Your task to perform on an android device: check data usage Image 0: 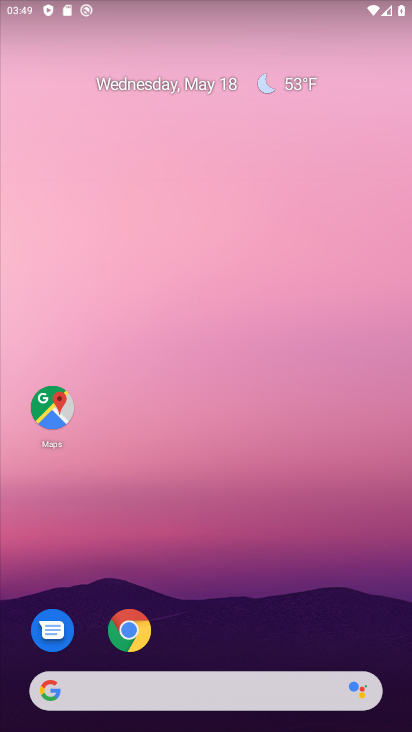
Step 0: drag from (221, 731) to (215, 140)
Your task to perform on an android device: check data usage Image 1: 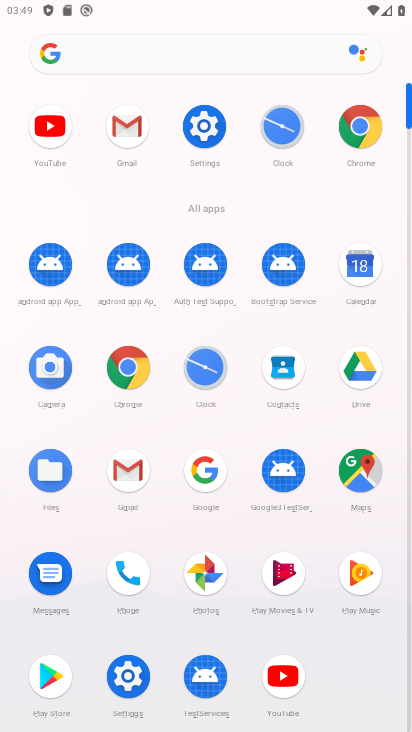
Step 1: click (202, 127)
Your task to perform on an android device: check data usage Image 2: 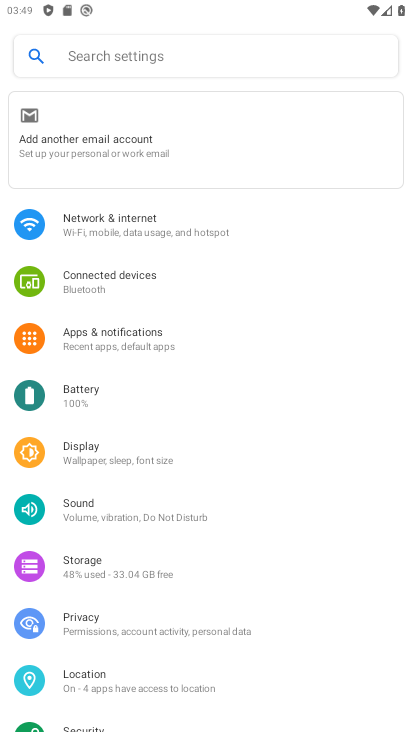
Step 2: click (105, 230)
Your task to perform on an android device: check data usage Image 3: 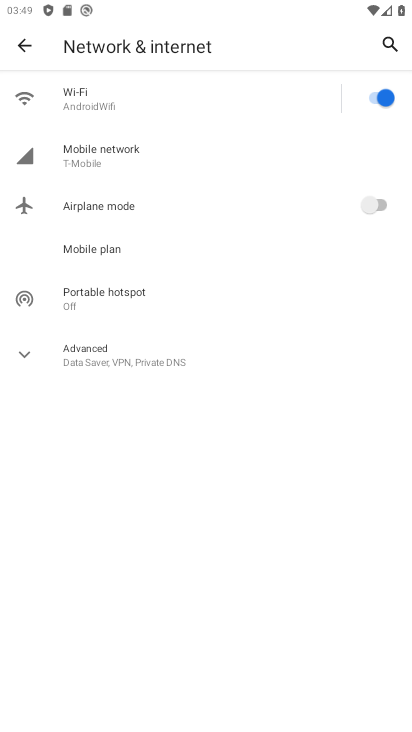
Step 3: click (90, 152)
Your task to perform on an android device: check data usage Image 4: 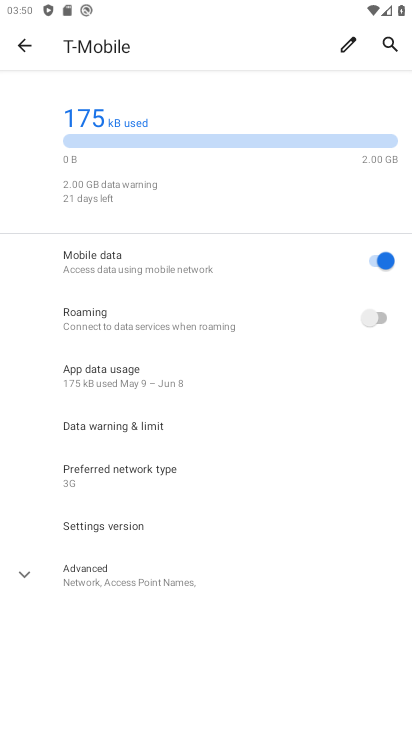
Step 4: click (84, 372)
Your task to perform on an android device: check data usage Image 5: 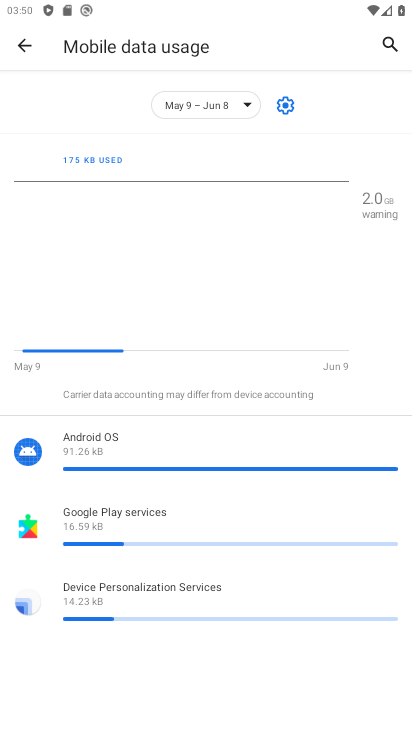
Step 5: task complete